Your task to perform on an android device: Open settings Image 0: 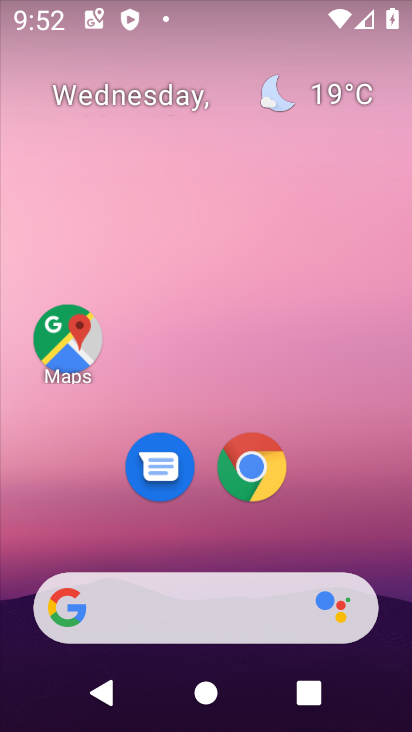
Step 0: drag from (282, 552) to (143, 31)
Your task to perform on an android device: Open settings Image 1: 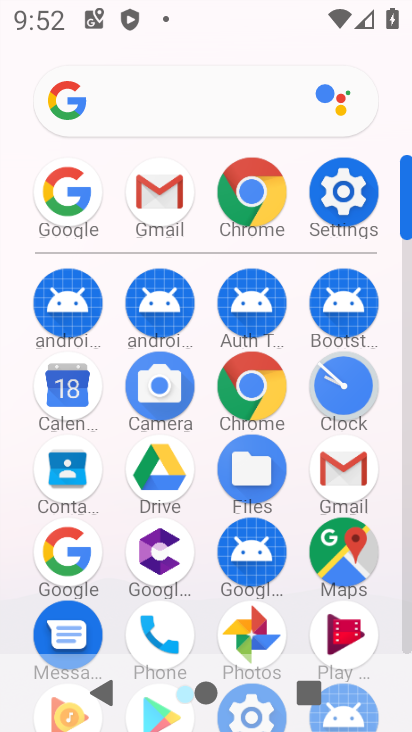
Step 1: click (330, 205)
Your task to perform on an android device: Open settings Image 2: 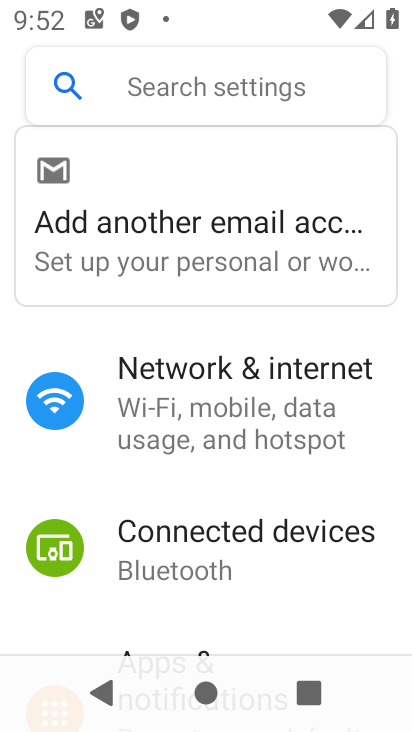
Step 2: task complete